Your task to perform on an android device: turn off location Image 0: 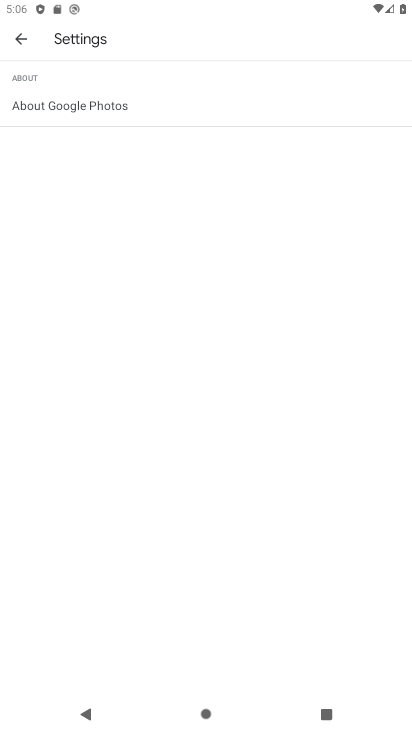
Step 0: press home button
Your task to perform on an android device: turn off location Image 1: 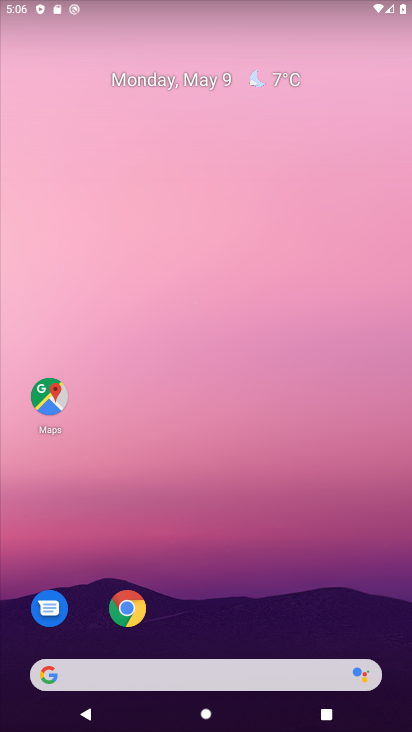
Step 1: drag from (212, 564) to (329, 6)
Your task to perform on an android device: turn off location Image 2: 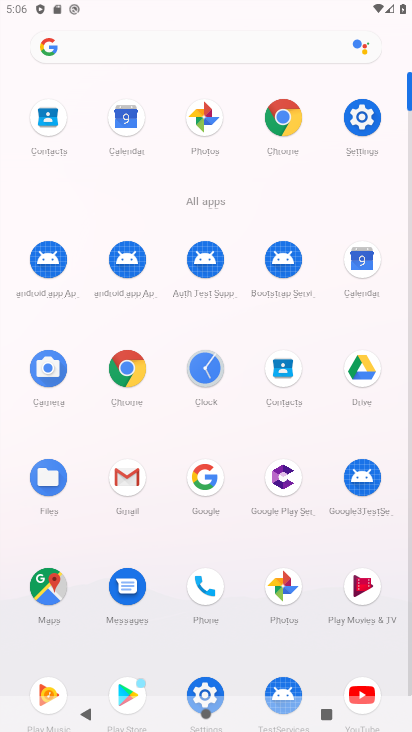
Step 2: click (363, 134)
Your task to perform on an android device: turn off location Image 3: 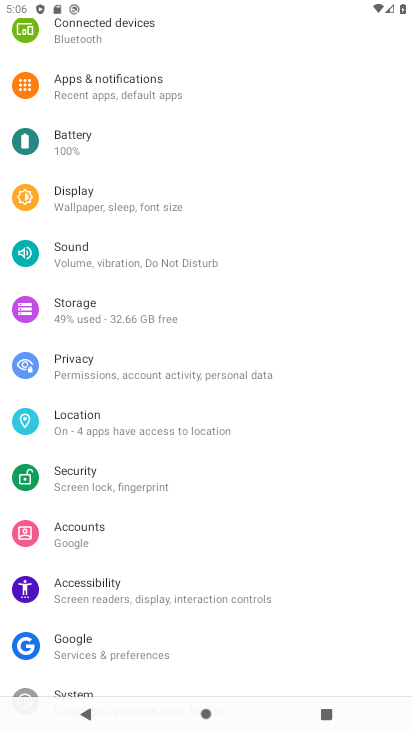
Step 3: click (112, 421)
Your task to perform on an android device: turn off location Image 4: 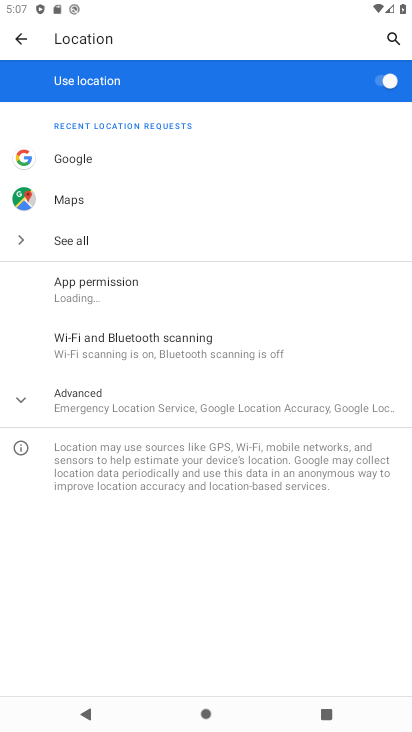
Step 4: click (371, 77)
Your task to perform on an android device: turn off location Image 5: 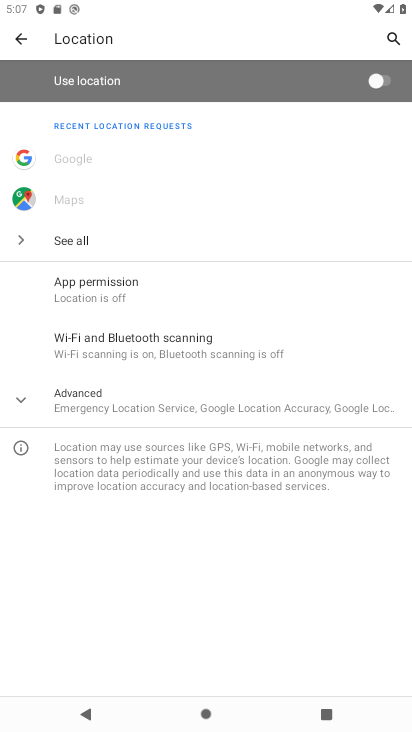
Step 5: task complete